Your task to perform on an android device: Open Maps and search for coffee Image 0: 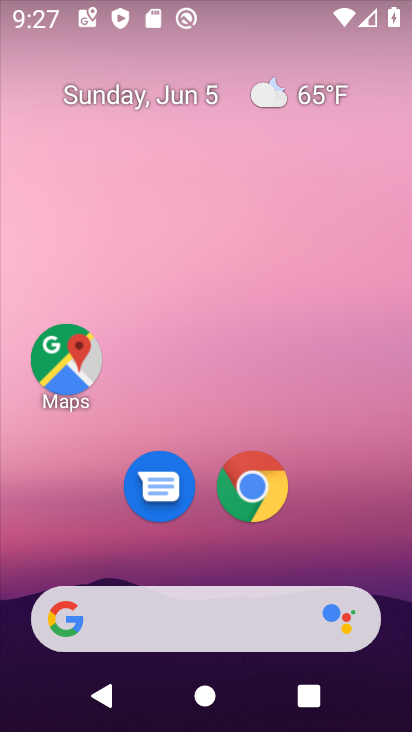
Step 0: drag from (377, 532) to (331, 133)
Your task to perform on an android device: Open Maps and search for coffee Image 1: 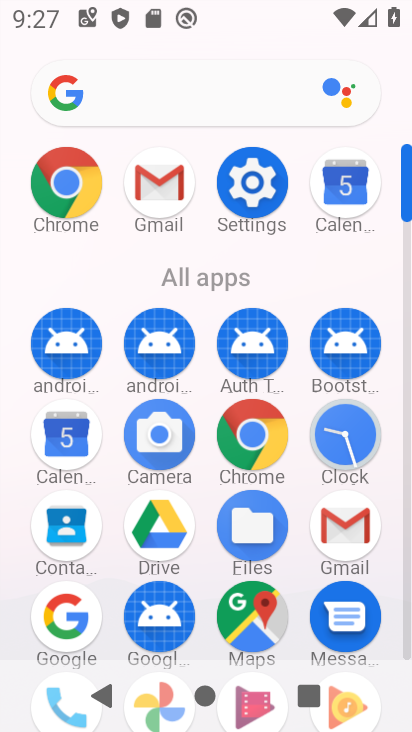
Step 1: click (237, 612)
Your task to perform on an android device: Open Maps and search for coffee Image 2: 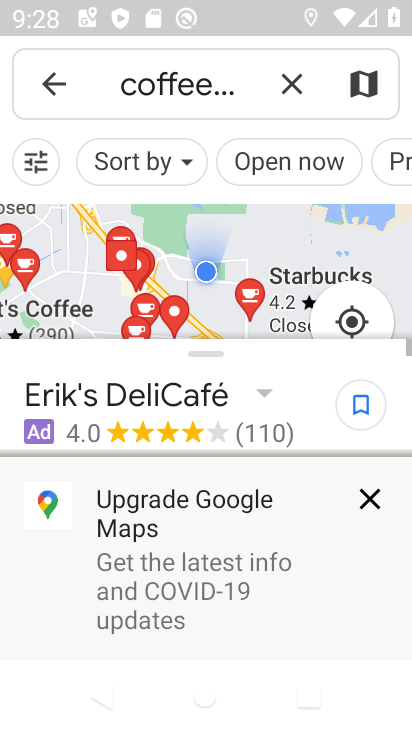
Step 2: task complete